Your task to perform on an android device: turn off javascript in the chrome app Image 0: 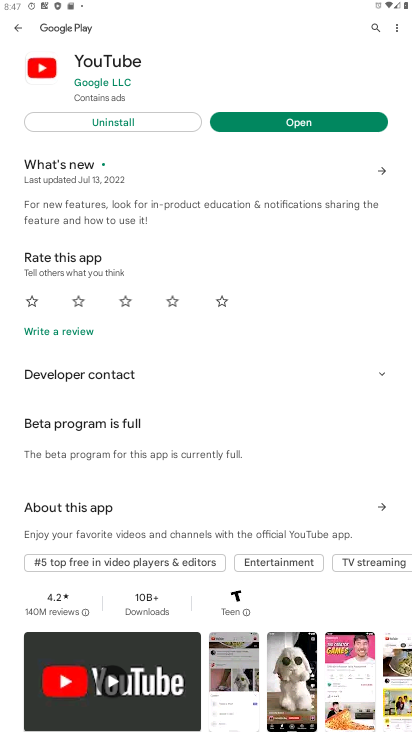
Step 0: press home button
Your task to perform on an android device: turn off javascript in the chrome app Image 1: 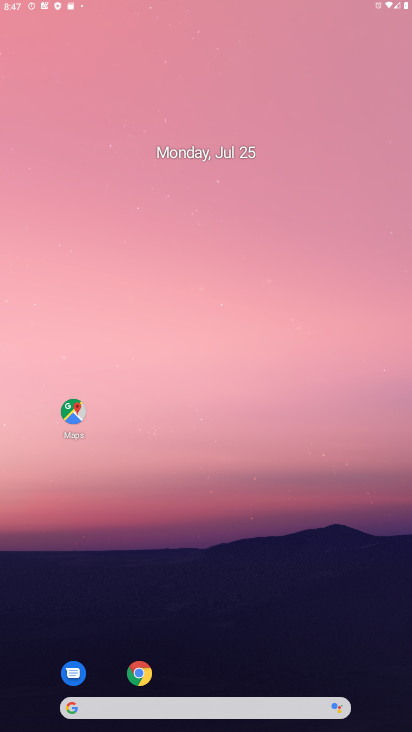
Step 1: drag from (381, 683) to (209, 43)
Your task to perform on an android device: turn off javascript in the chrome app Image 2: 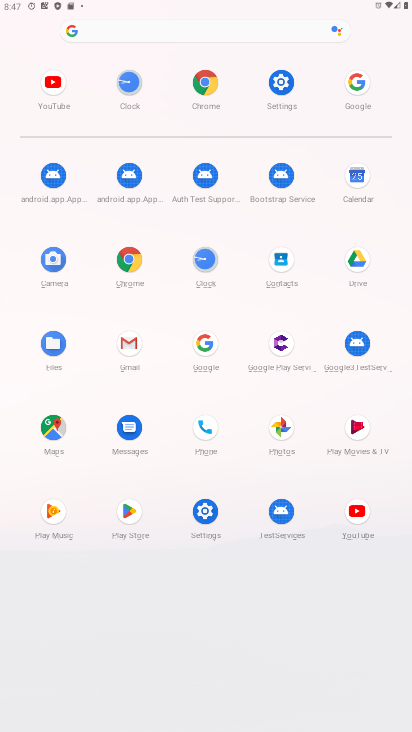
Step 2: click (131, 271)
Your task to perform on an android device: turn off javascript in the chrome app Image 3: 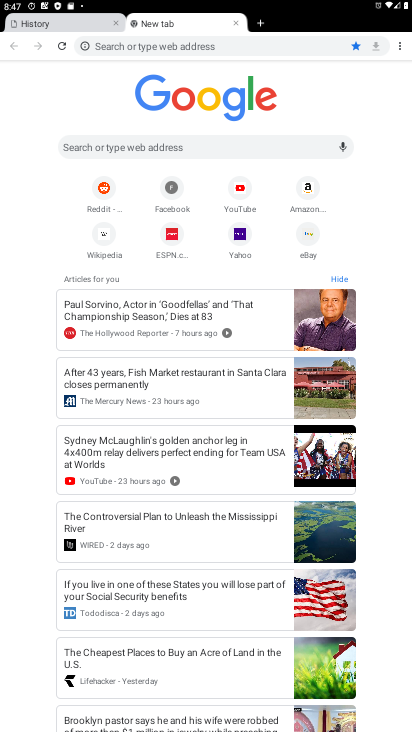
Step 3: click (400, 46)
Your task to perform on an android device: turn off javascript in the chrome app Image 4: 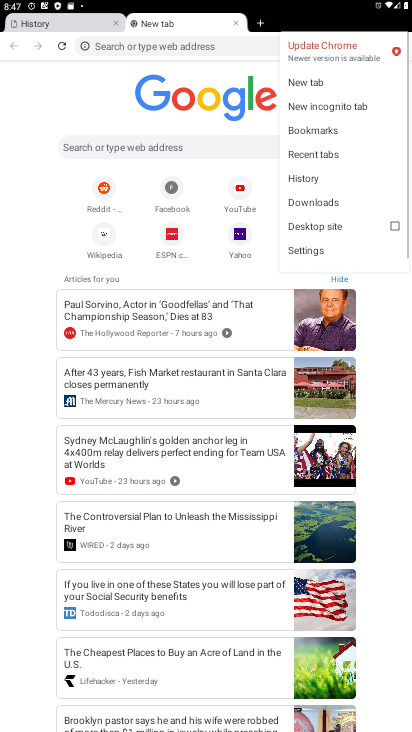
Step 4: click (316, 244)
Your task to perform on an android device: turn off javascript in the chrome app Image 5: 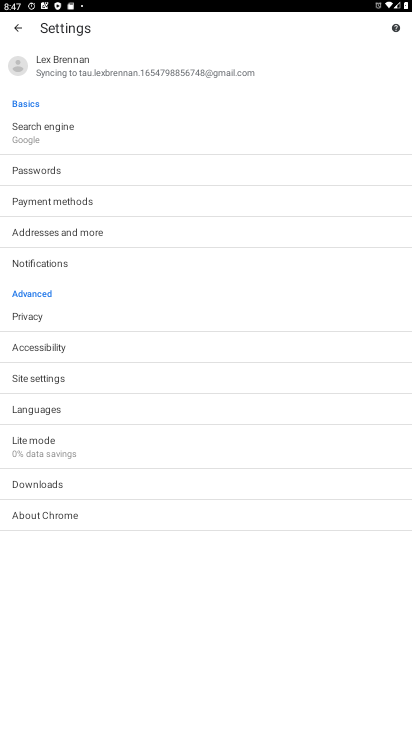
Step 5: click (103, 384)
Your task to perform on an android device: turn off javascript in the chrome app Image 6: 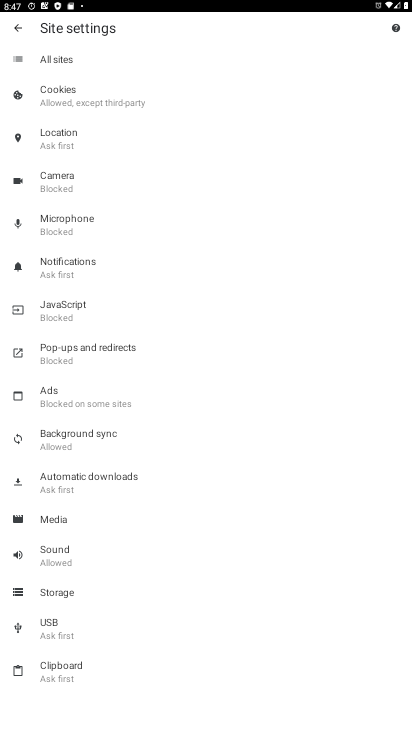
Step 6: click (76, 317)
Your task to perform on an android device: turn off javascript in the chrome app Image 7: 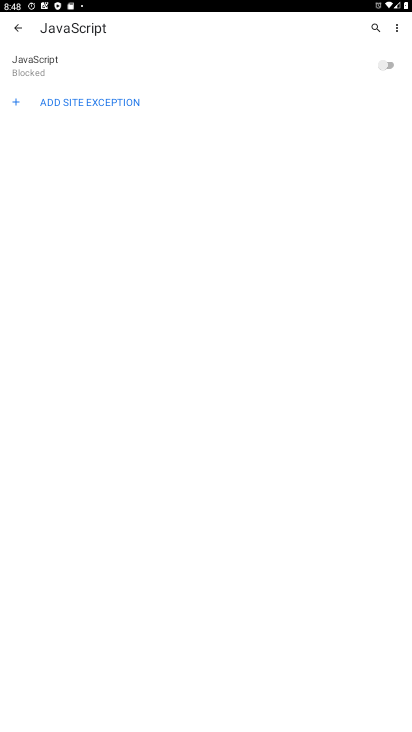
Step 7: task complete